Your task to perform on an android device: check out phone information Image 0: 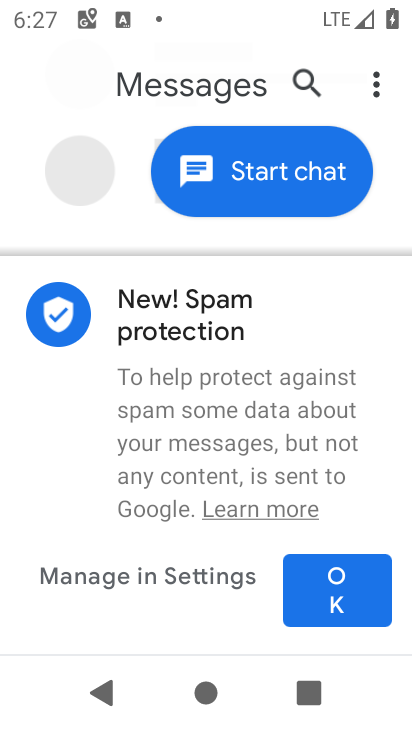
Step 0: press home button
Your task to perform on an android device: check out phone information Image 1: 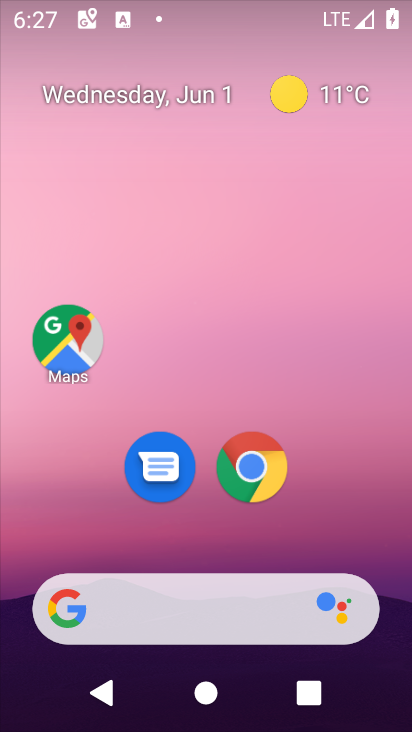
Step 1: drag from (323, 386) to (221, 41)
Your task to perform on an android device: check out phone information Image 2: 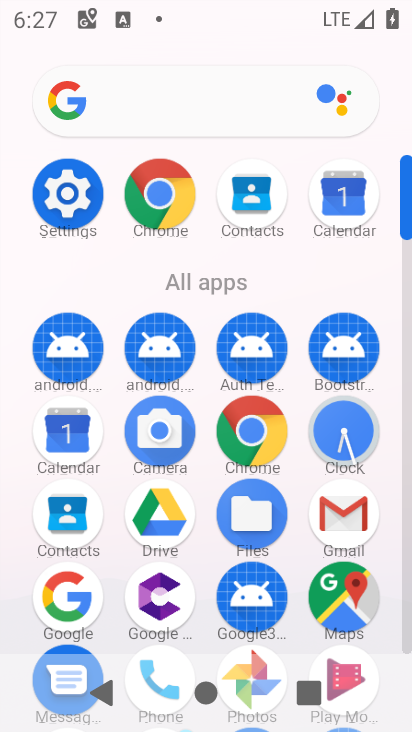
Step 2: click (70, 199)
Your task to perform on an android device: check out phone information Image 3: 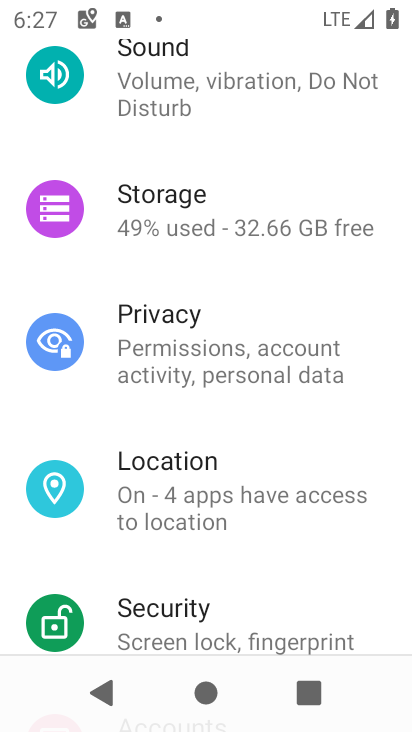
Step 3: drag from (217, 454) to (168, 48)
Your task to perform on an android device: check out phone information Image 4: 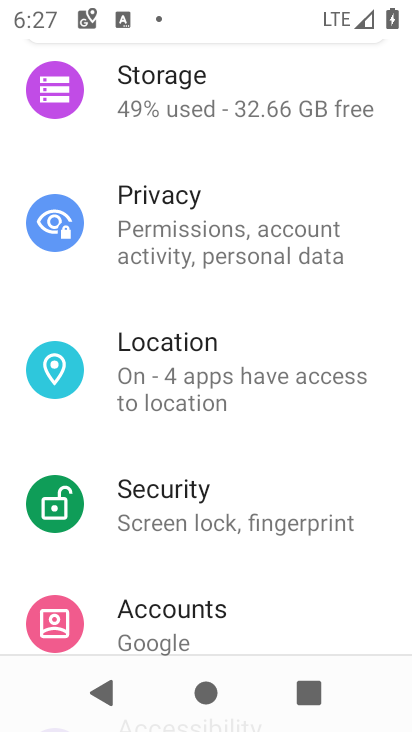
Step 4: drag from (251, 551) to (194, 36)
Your task to perform on an android device: check out phone information Image 5: 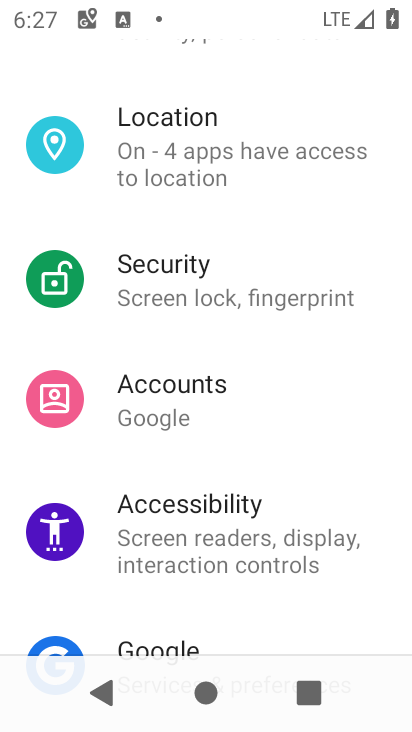
Step 5: drag from (212, 543) to (250, 15)
Your task to perform on an android device: check out phone information Image 6: 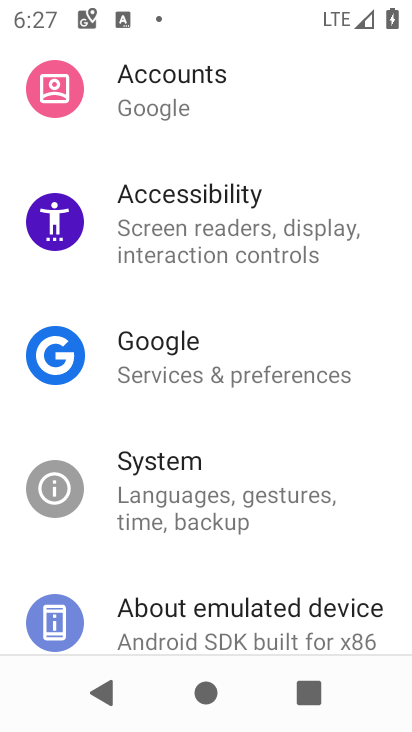
Step 6: click (230, 609)
Your task to perform on an android device: check out phone information Image 7: 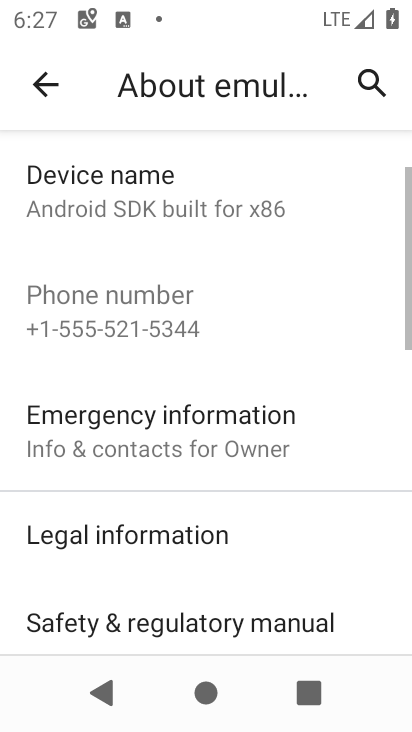
Step 7: task complete